Your task to perform on an android device: clear all cookies in the chrome app Image 0: 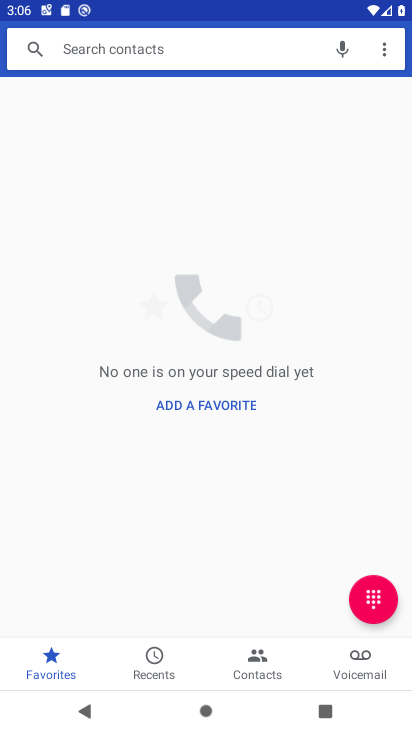
Step 0: press home button
Your task to perform on an android device: clear all cookies in the chrome app Image 1: 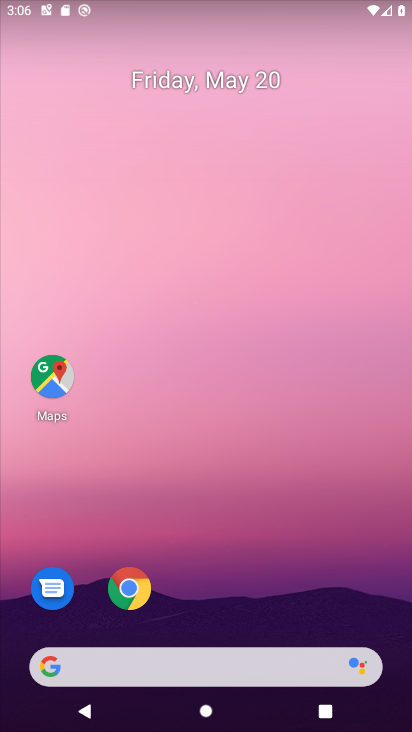
Step 1: click (129, 592)
Your task to perform on an android device: clear all cookies in the chrome app Image 2: 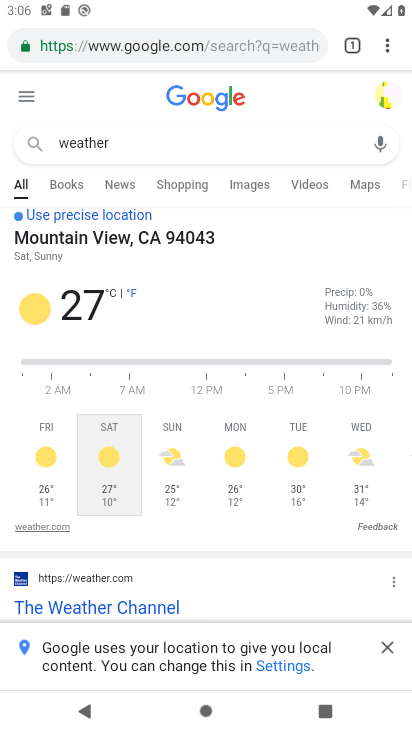
Step 2: click (389, 49)
Your task to perform on an android device: clear all cookies in the chrome app Image 3: 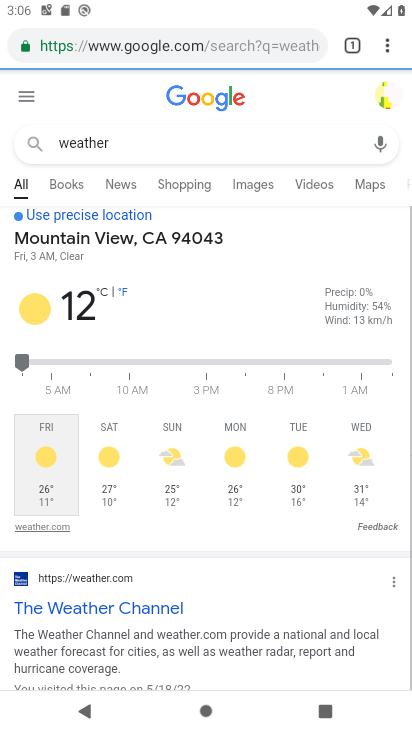
Step 3: drag from (394, 30) to (230, 267)
Your task to perform on an android device: clear all cookies in the chrome app Image 4: 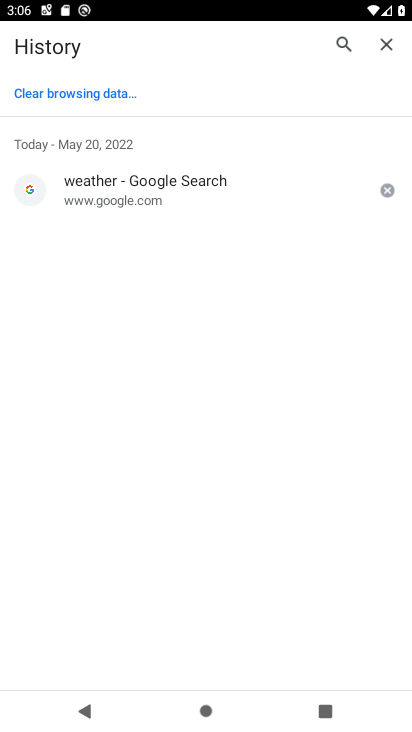
Step 4: click (103, 101)
Your task to perform on an android device: clear all cookies in the chrome app Image 5: 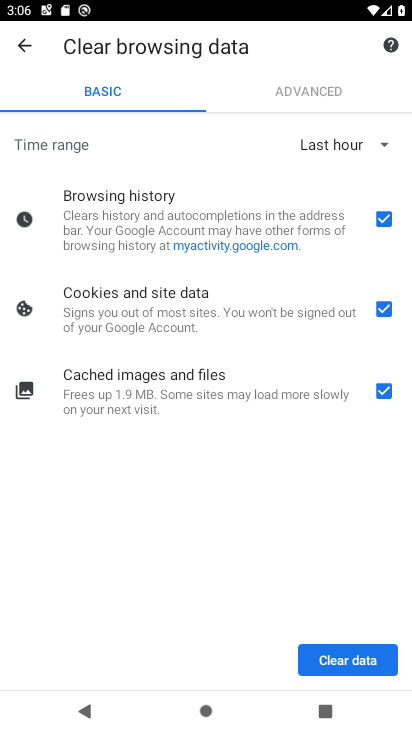
Step 5: click (356, 672)
Your task to perform on an android device: clear all cookies in the chrome app Image 6: 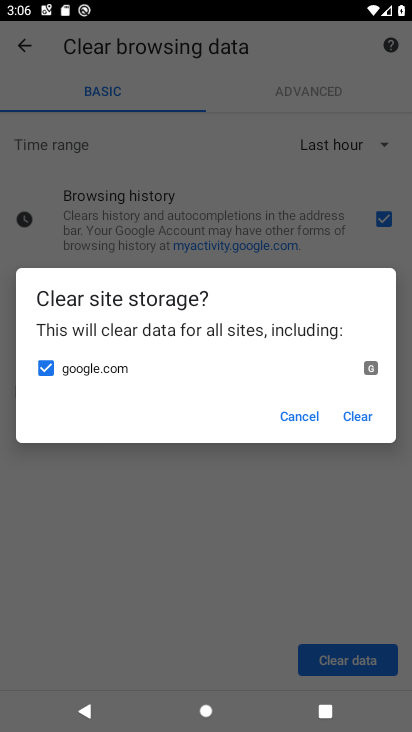
Step 6: click (375, 419)
Your task to perform on an android device: clear all cookies in the chrome app Image 7: 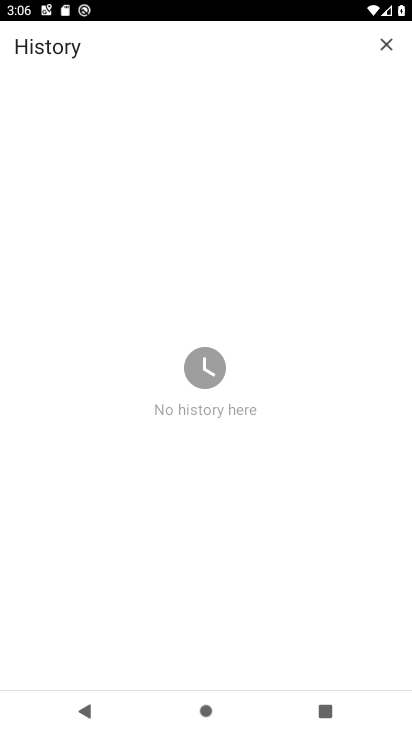
Step 7: task complete